Your task to perform on an android device: Open Yahoo.com Image 0: 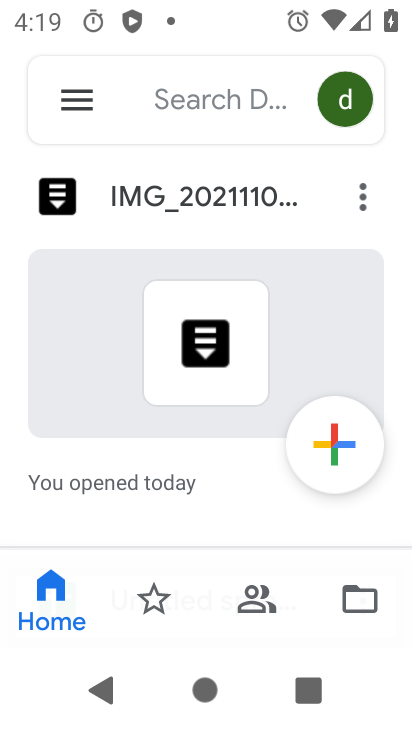
Step 0: press home button
Your task to perform on an android device: Open Yahoo.com Image 1: 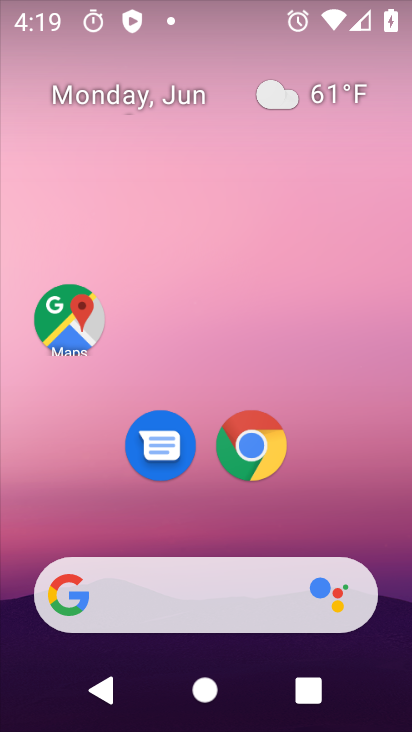
Step 1: click (255, 471)
Your task to perform on an android device: Open Yahoo.com Image 2: 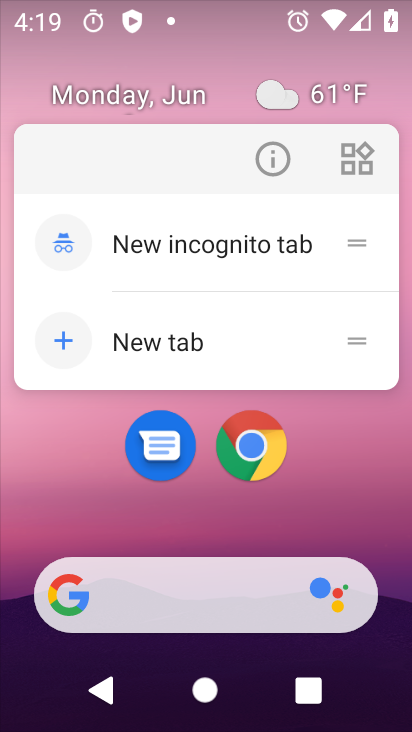
Step 2: click (262, 444)
Your task to perform on an android device: Open Yahoo.com Image 3: 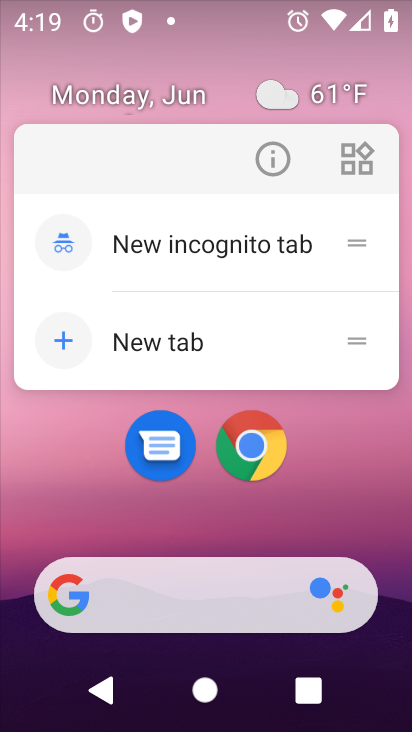
Step 3: click (257, 461)
Your task to perform on an android device: Open Yahoo.com Image 4: 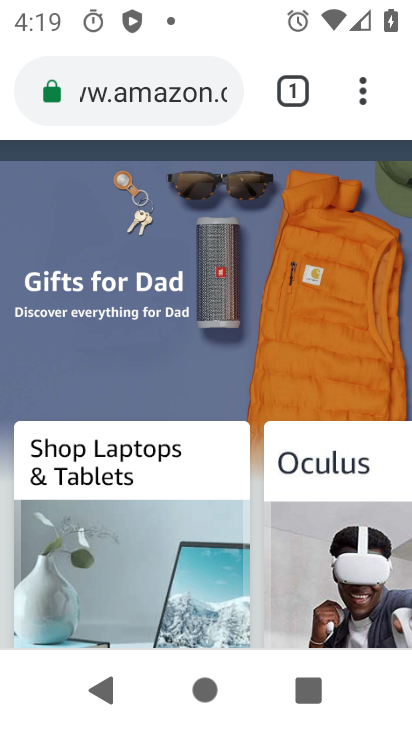
Step 4: click (256, 450)
Your task to perform on an android device: Open Yahoo.com Image 5: 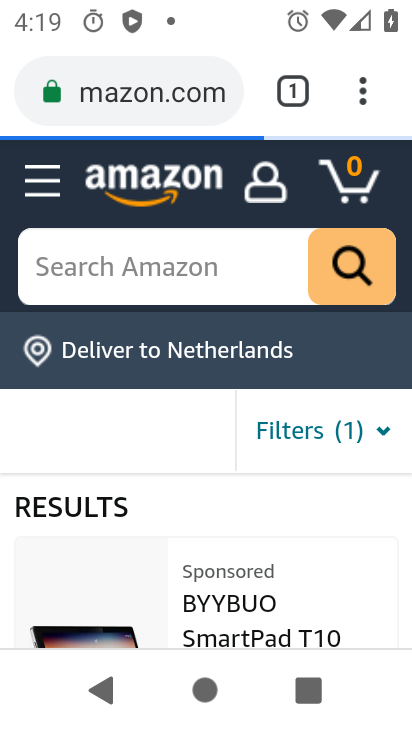
Step 5: press back button
Your task to perform on an android device: Open Yahoo.com Image 6: 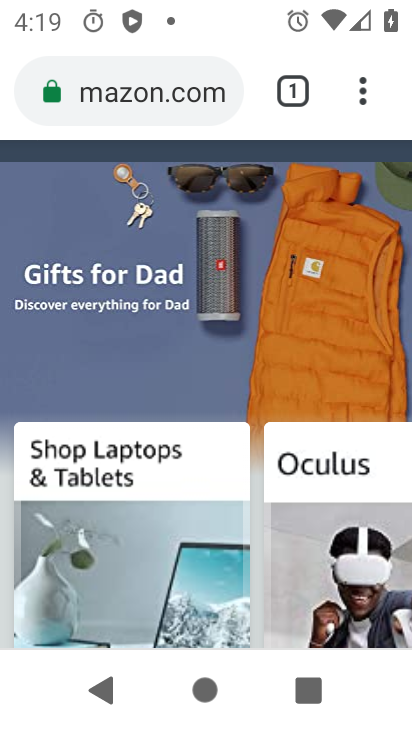
Step 6: press back button
Your task to perform on an android device: Open Yahoo.com Image 7: 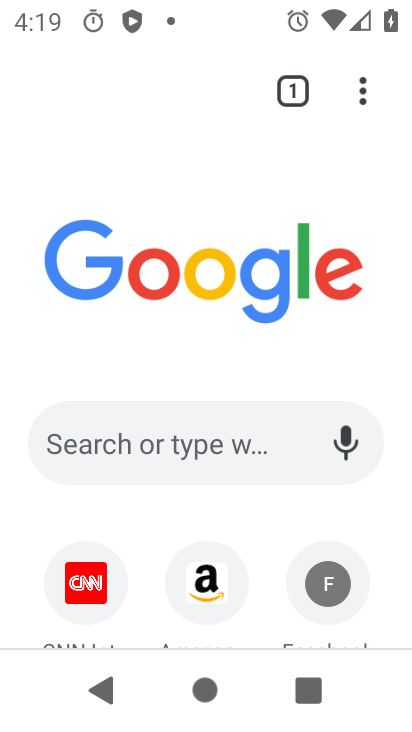
Step 7: drag from (277, 511) to (299, 276)
Your task to perform on an android device: Open Yahoo.com Image 8: 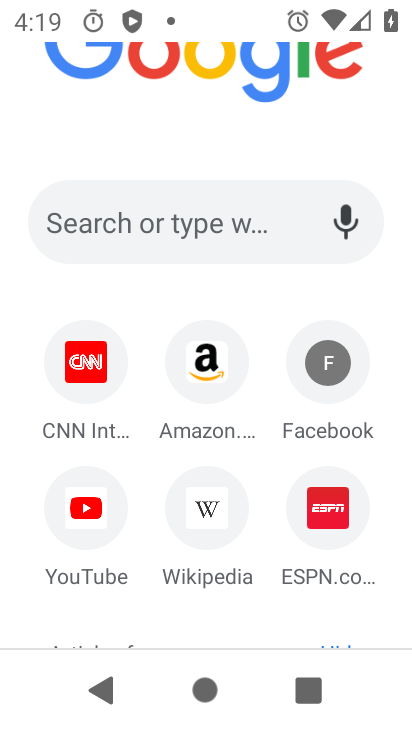
Step 8: drag from (178, 587) to (213, 345)
Your task to perform on an android device: Open Yahoo.com Image 9: 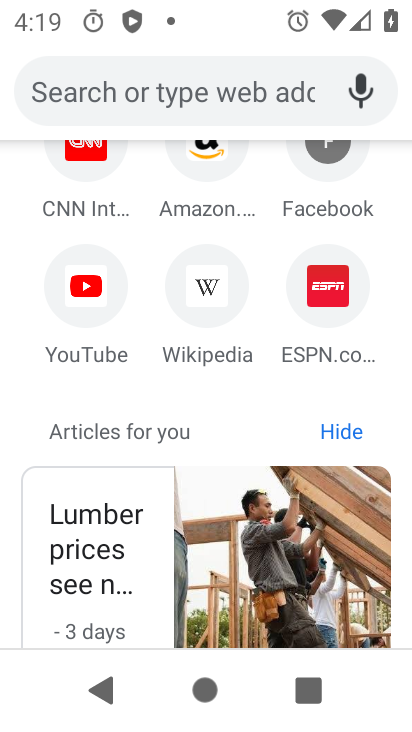
Step 9: click (231, 94)
Your task to perform on an android device: Open Yahoo.com Image 10: 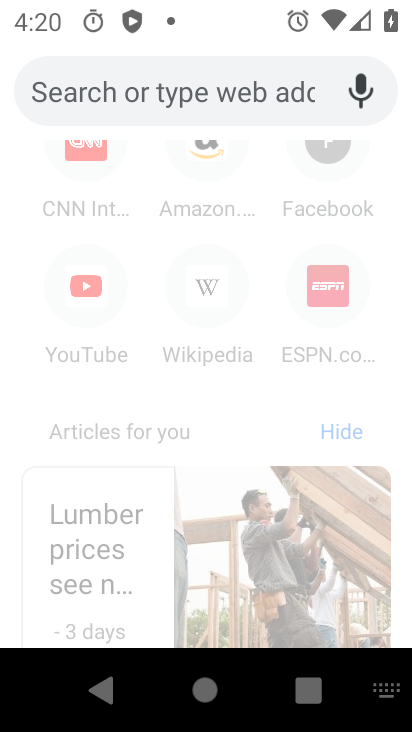
Step 10: type "www.yahoo.com"
Your task to perform on an android device: Open Yahoo.com Image 11: 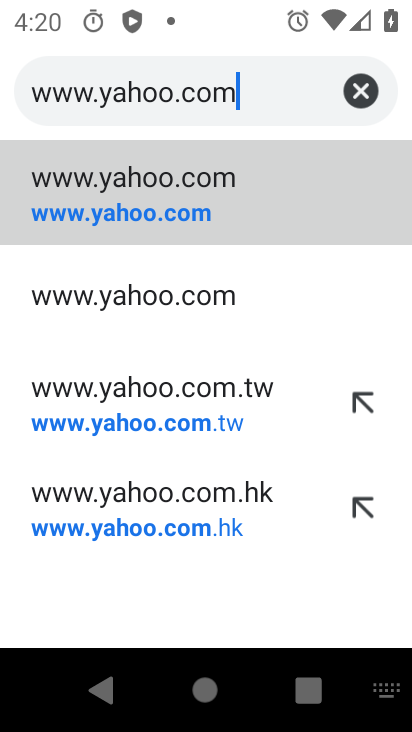
Step 11: click (146, 204)
Your task to perform on an android device: Open Yahoo.com Image 12: 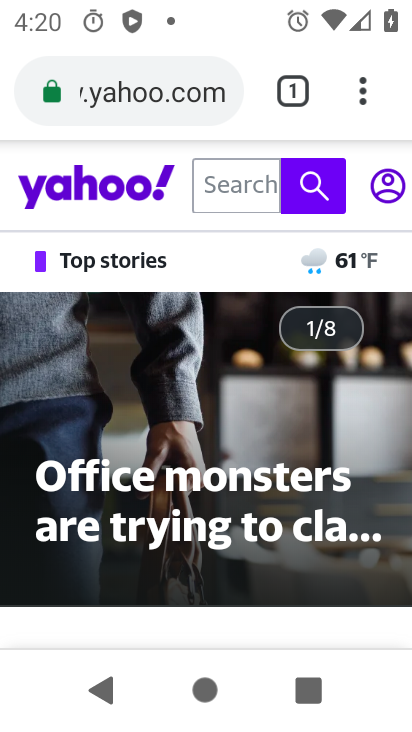
Step 12: task complete